Your task to perform on an android device: remove spam from my inbox in the gmail app Image 0: 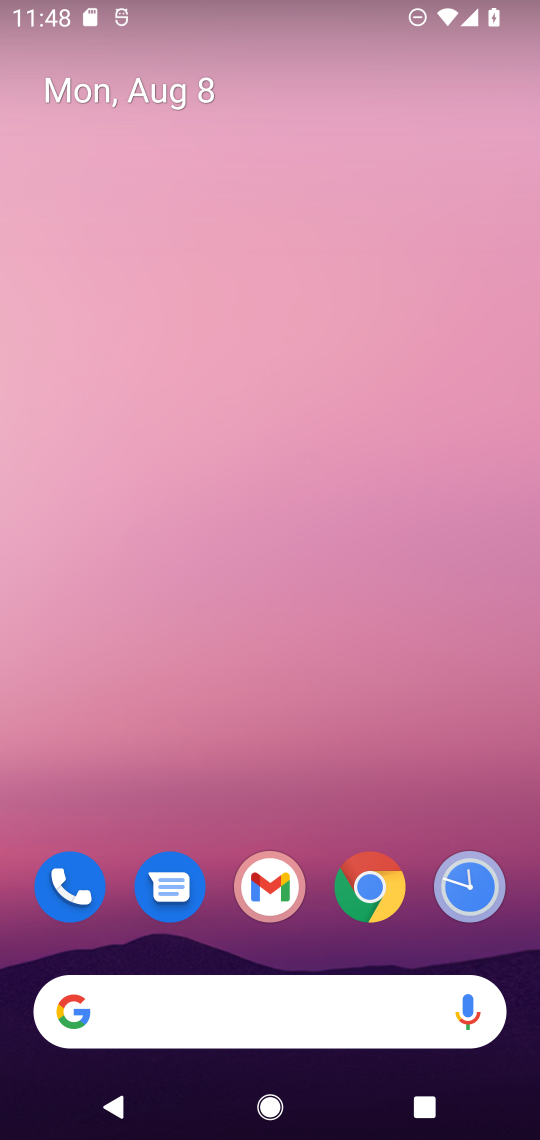
Step 0: click (279, 869)
Your task to perform on an android device: remove spam from my inbox in the gmail app Image 1: 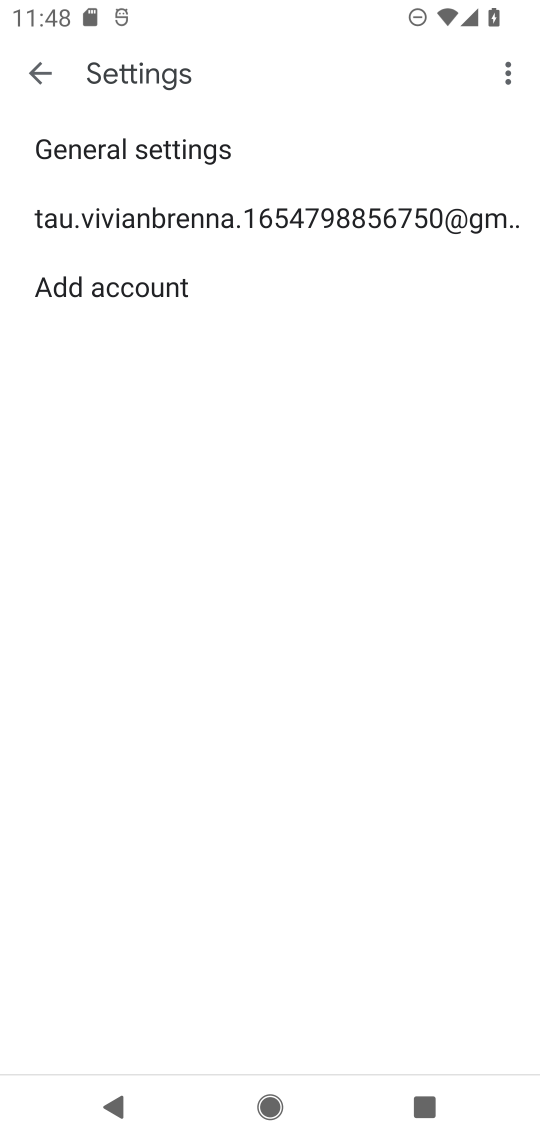
Step 1: click (42, 72)
Your task to perform on an android device: remove spam from my inbox in the gmail app Image 2: 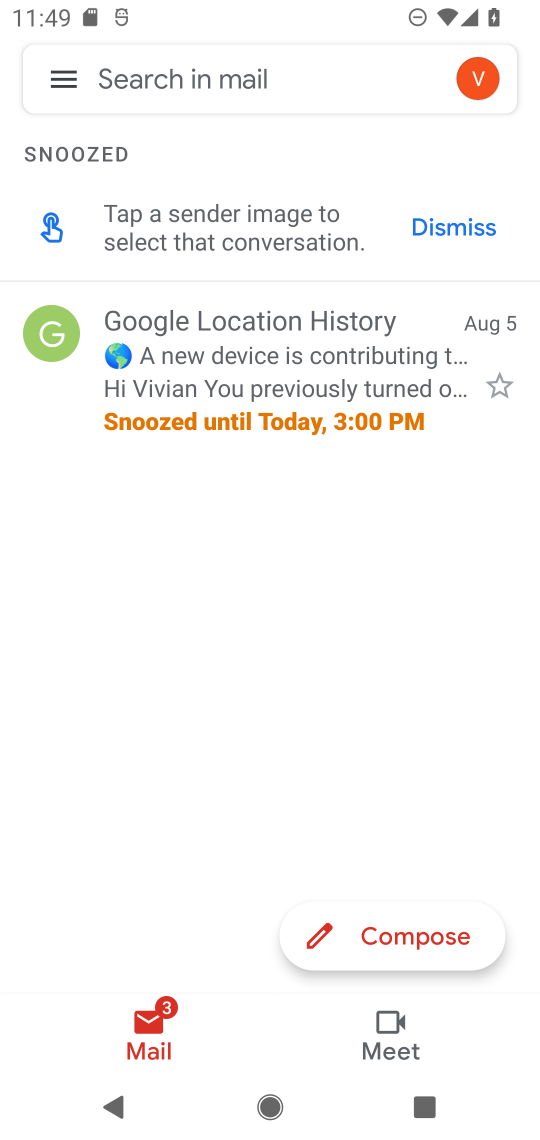
Step 2: click (60, 81)
Your task to perform on an android device: remove spam from my inbox in the gmail app Image 3: 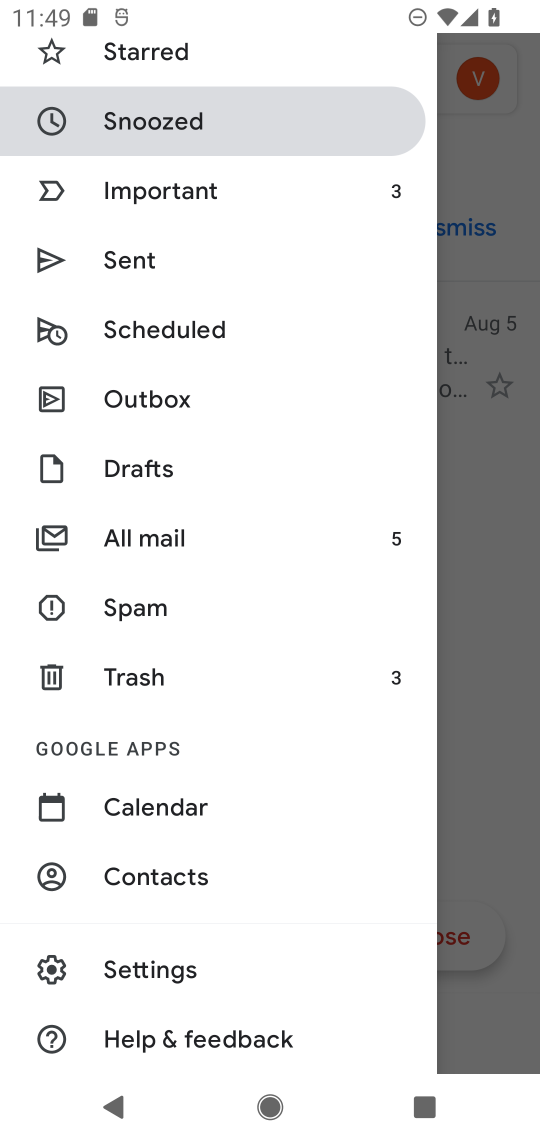
Step 3: click (153, 606)
Your task to perform on an android device: remove spam from my inbox in the gmail app Image 4: 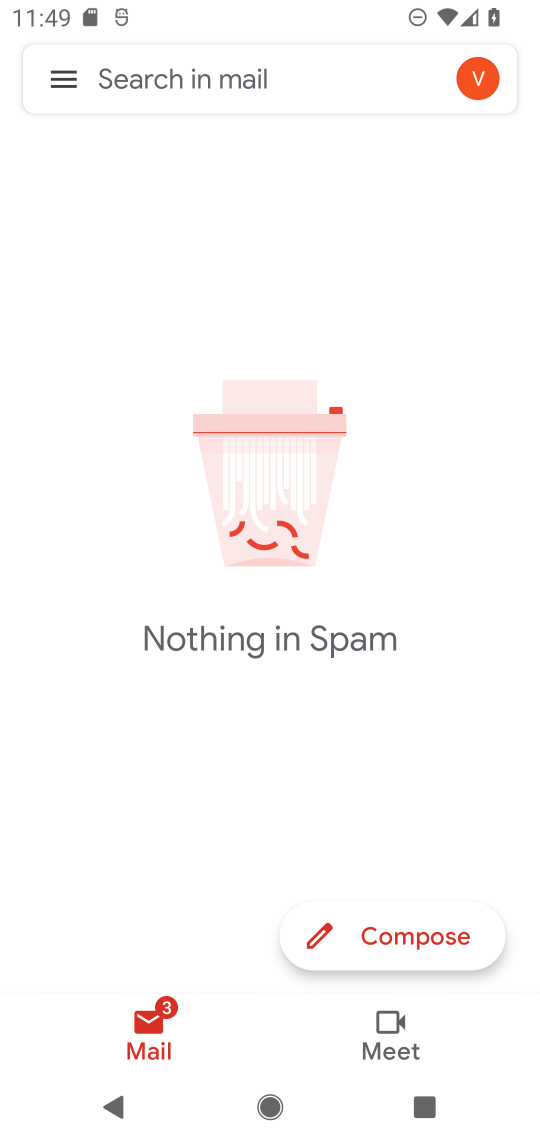
Step 4: task complete